Your task to perform on an android device: star an email in the gmail app Image 0: 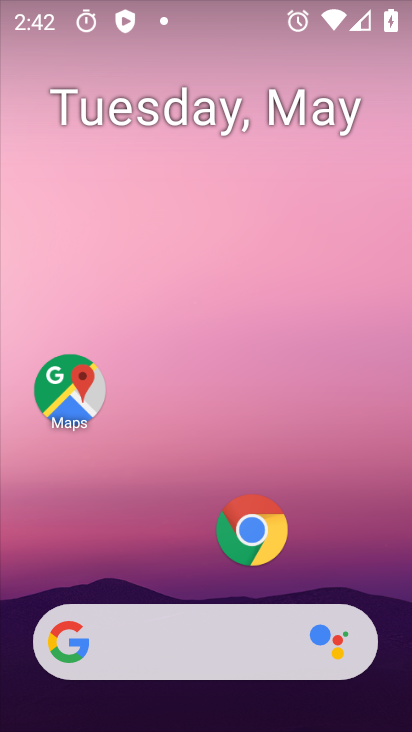
Step 0: drag from (218, 582) to (170, 34)
Your task to perform on an android device: star an email in the gmail app Image 1: 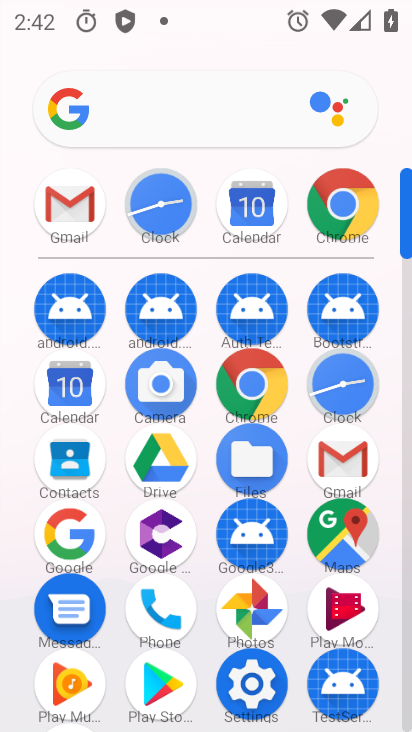
Step 1: click (333, 461)
Your task to perform on an android device: star an email in the gmail app Image 2: 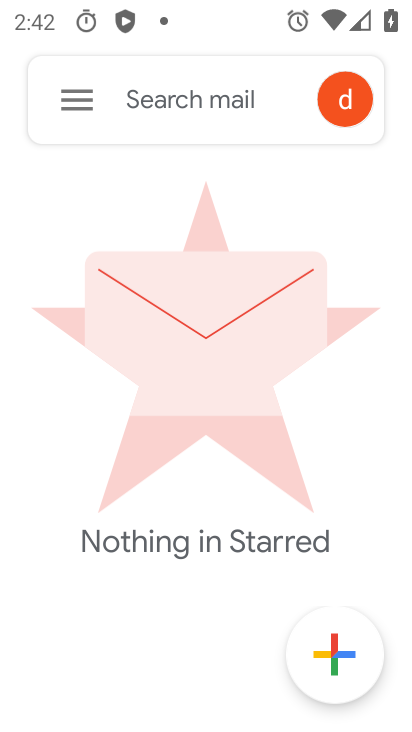
Step 2: click (80, 94)
Your task to perform on an android device: star an email in the gmail app Image 3: 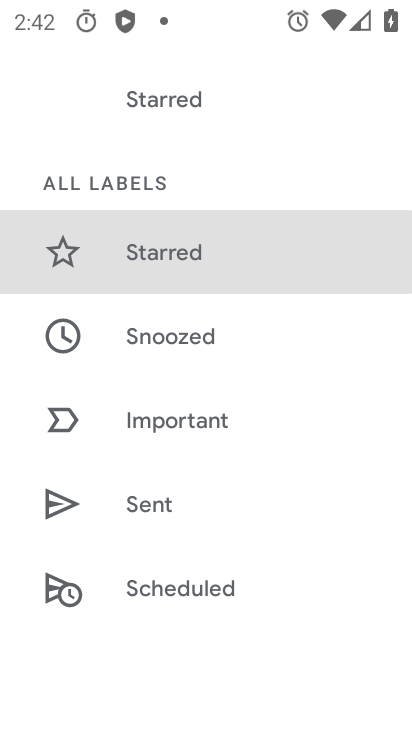
Step 3: drag from (174, 422) to (138, 20)
Your task to perform on an android device: star an email in the gmail app Image 4: 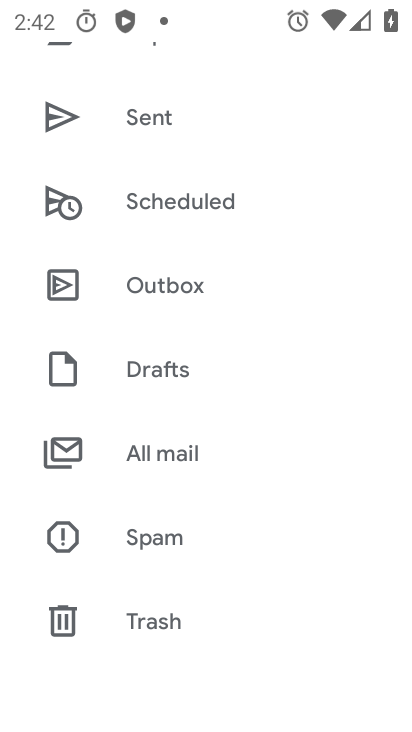
Step 4: click (232, 445)
Your task to perform on an android device: star an email in the gmail app Image 5: 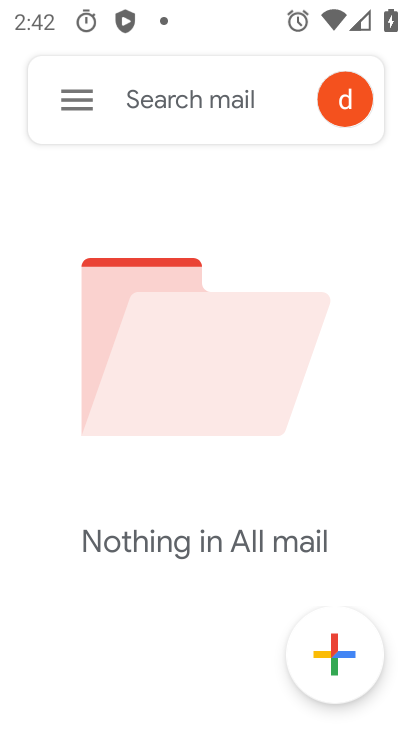
Step 5: task complete